Your task to perform on an android device: turn off sleep mode Image 0: 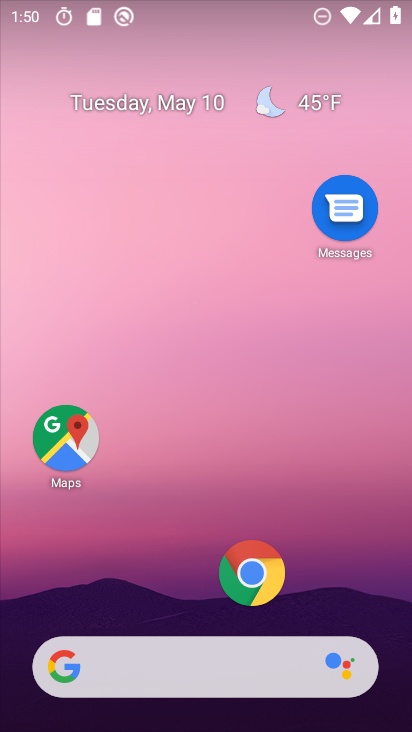
Step 0: drag from (206, 612) to (209, 279)
Your task to perform on an android device: turn off sleep mode Image 1: 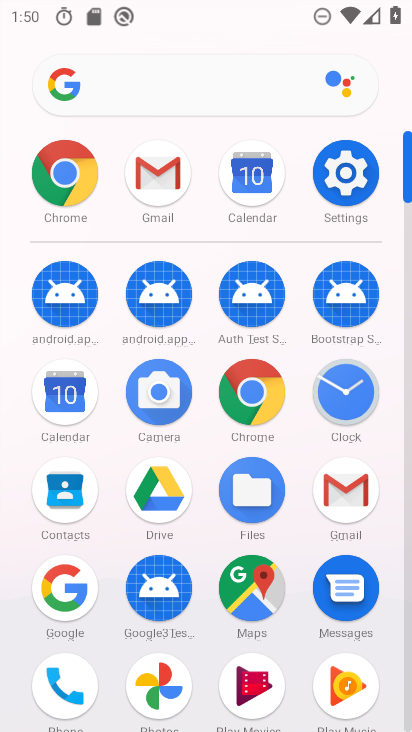
Step 1: click (351, 172)
Your task to perform on an android device: turn off sleep mode Image 2: 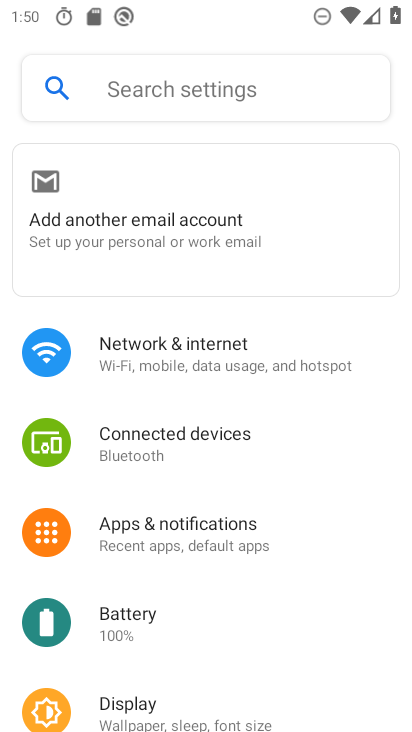
Step 2: drag from (116, 648) to (214, 244)
Your task to perform on an android device: turn off sleep mode Image 3: 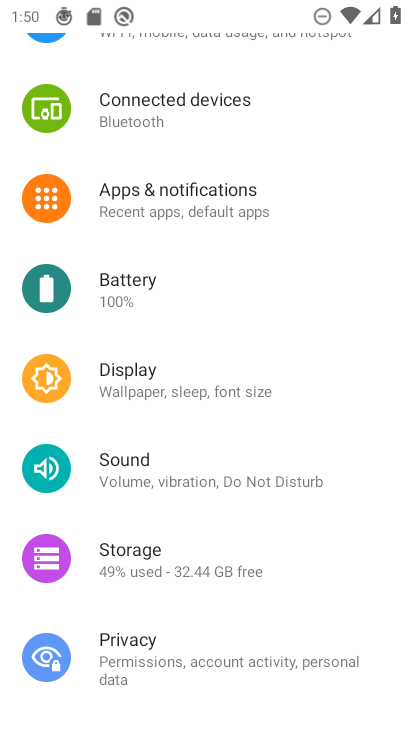
Step 3: click (176, 389)
Your task to perform on an android device: turn off sleep mode Image 4: 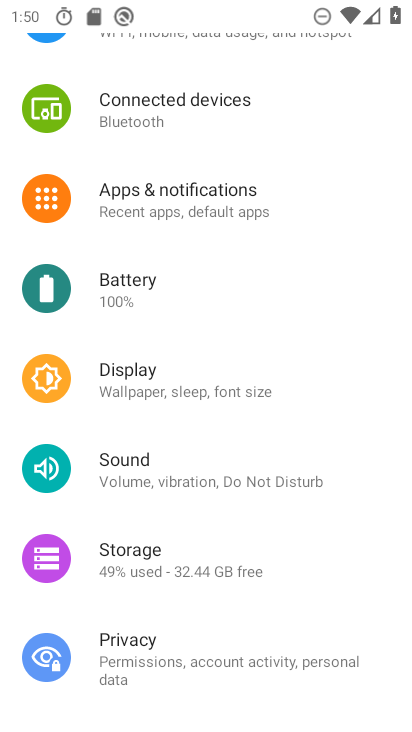
Step 4: click (176, 389)
Your task to perform on an android device: turn off sleep mode Image 5: 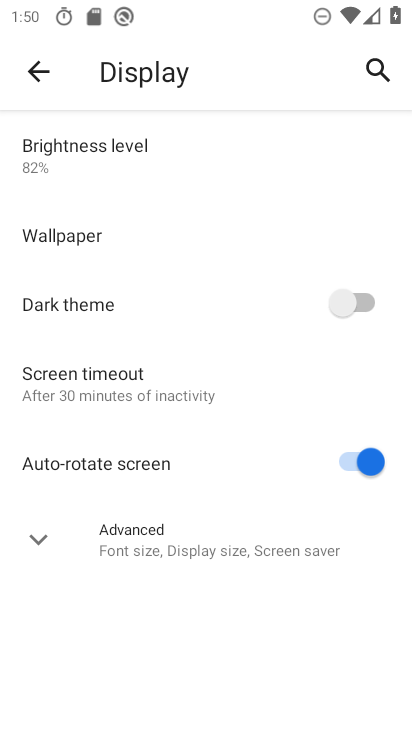
Step 5: click (115, 379)
Your task to perform on an android device: turn off sleep mode Image 6: 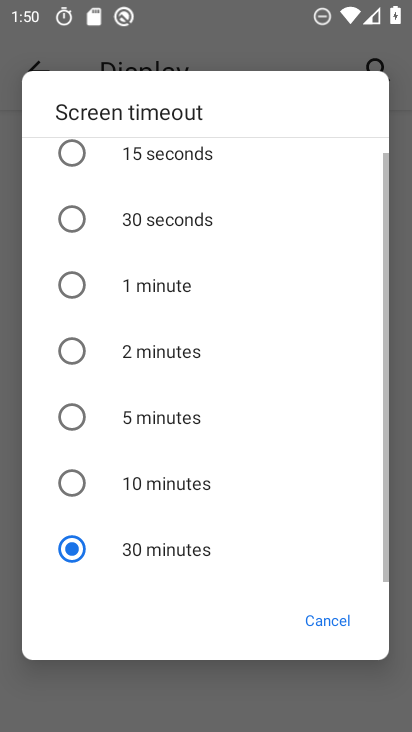
Step 6: task complete